Your task to perform on an android device: What is the news today? Image 0: 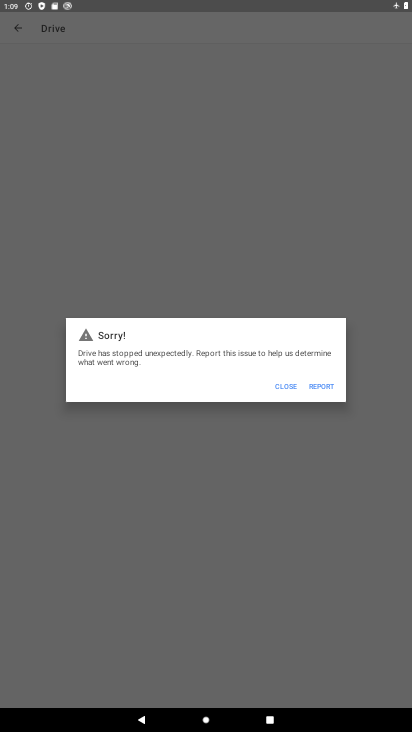
Step 0: press home button
Your task to perform on an android device: What is the news today? Image 1: 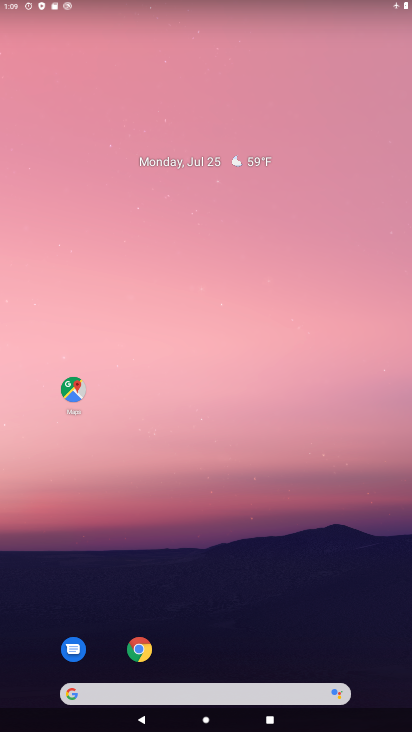
Step 1: drag from (163, 696) to (240, 67)
Your task to perform on an android device: What is the news today? Image 2: 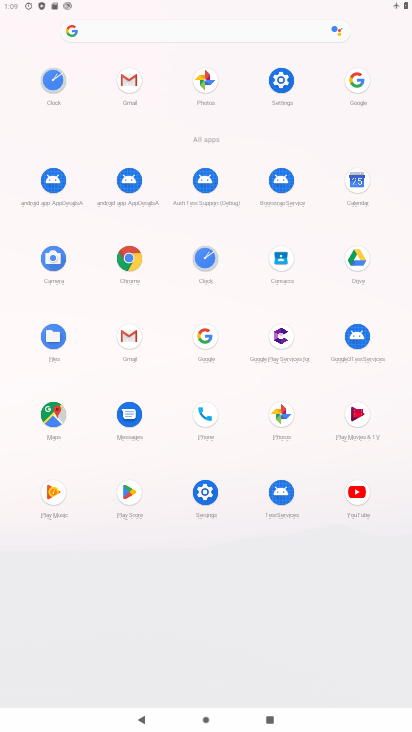
Step 2: click (203, 334)
Your task to perform on an android device: What is the news today? Image 3: 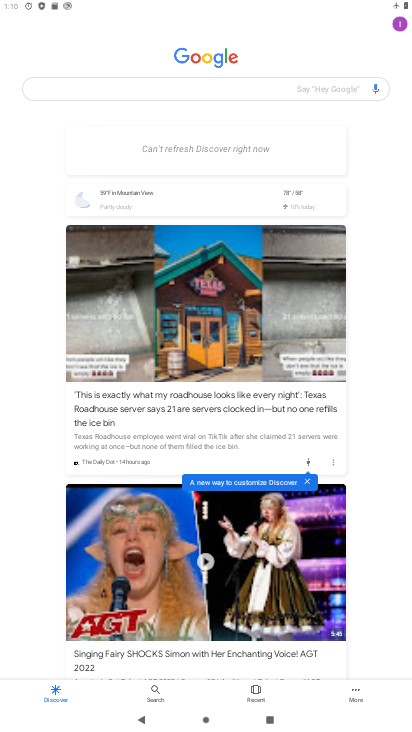
Step 3: click (213, 87)
Your task to perform on an android device: What is the news today? Image 4: 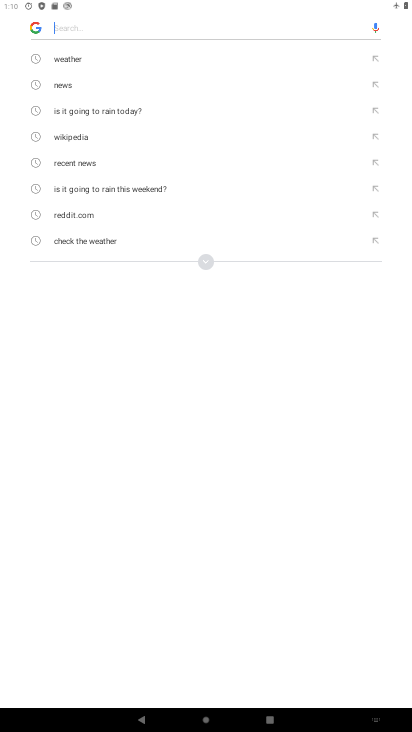
Step 4: type "What is the news today?"
Your task to perform on an android device: What is the news today? Image 5: 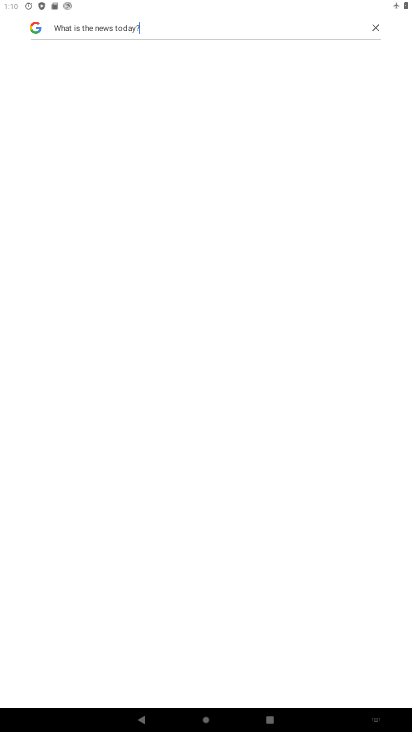
Step 5: task complete